Your task to perform on an android device: turn on data saver in the chrome app Image 0: 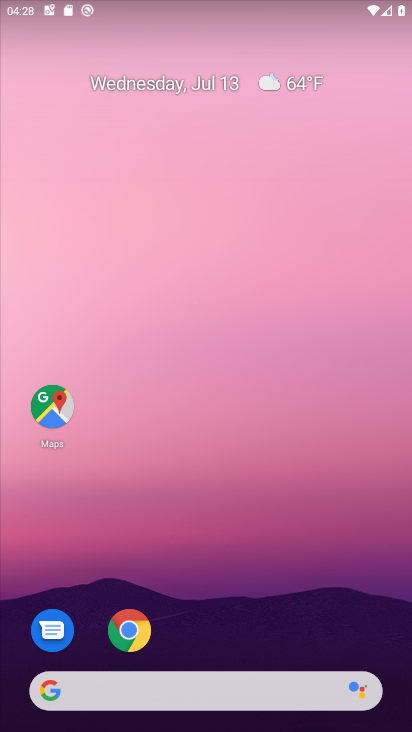
Step 0: click (141, 628)
Your task to perform on an android device: turn on data saver in the chrome app Image 1: 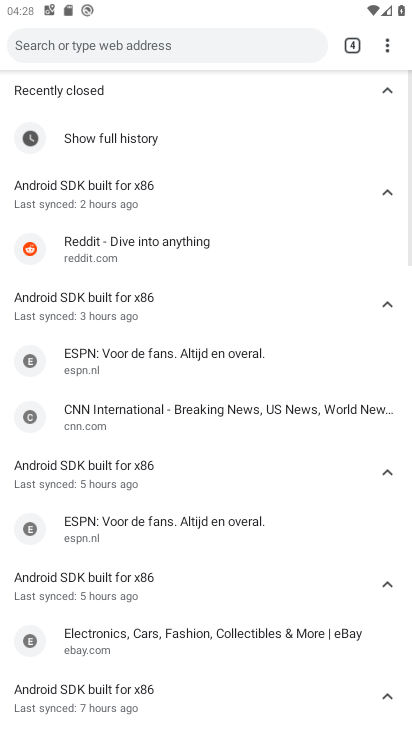
Step 1: click (397, 34)
Your task to perform on an android device: turn on data saver in the chrome app Image 2: 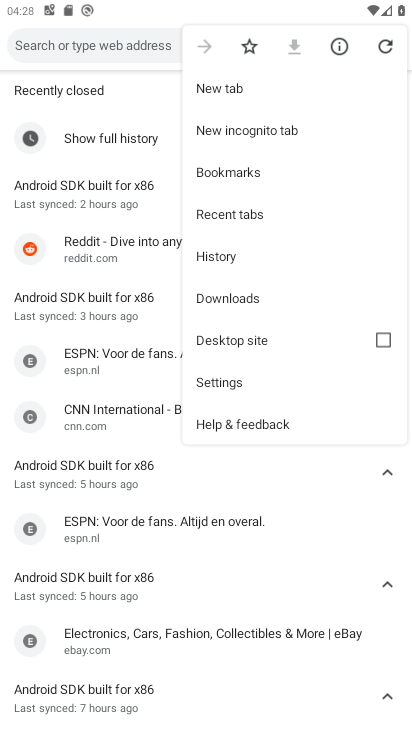
Step 2: click (246, 390)
Your task to perform on an android device: turn on data saver in the chrome app Image 3: 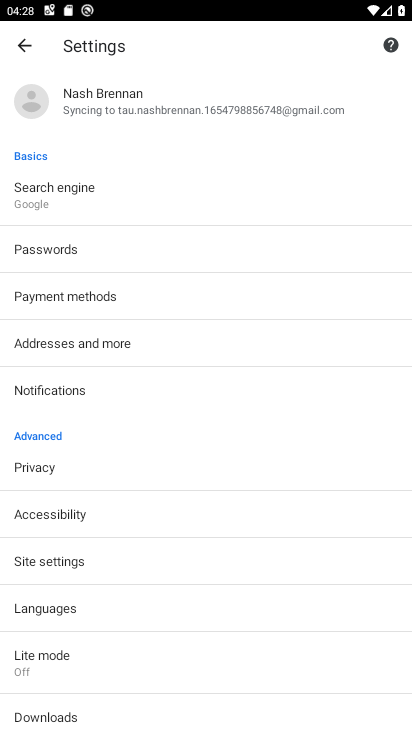
Step 3: click (124, 654)
Your task to perform on an android device: turn on data saver in the chrome app Image 4: 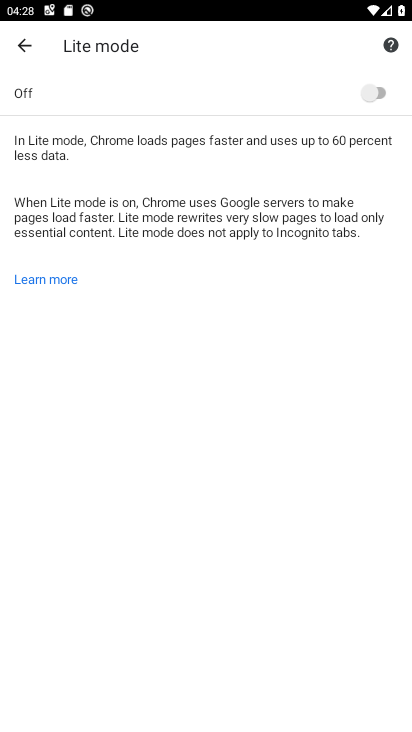
Step 4: click (382, 89)
Your task to perform on an android device: turn on data saver in the chrome app Image 5: 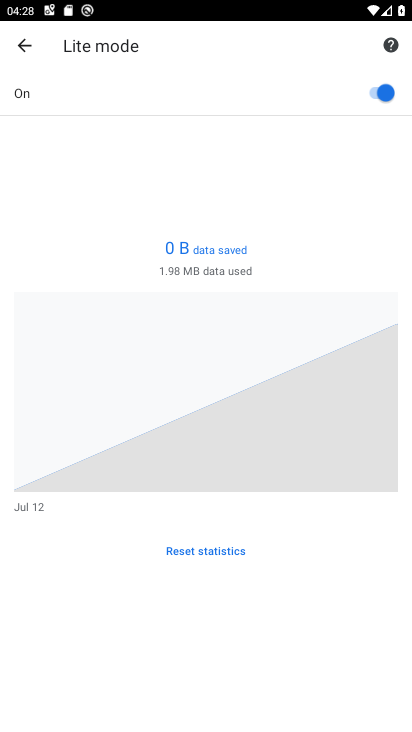
Step 5: task complete